Your task to perform on an android device: Open my contact list Image 0: 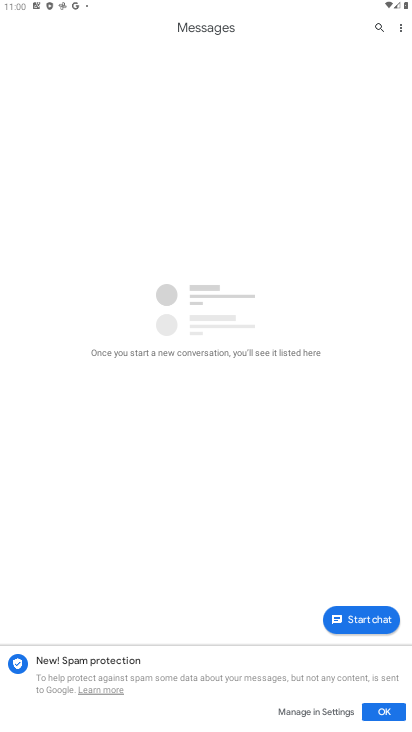
Step 0: press home button
Your task to perform on an android device: Open my contact list Image 1: 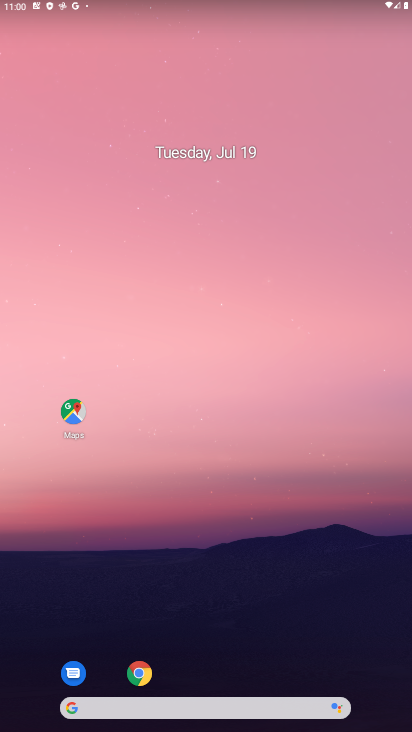
Step 1: drag from (214, 681) to (217, 17)
Your task to perform on an android device: Open my contact list Image 2: 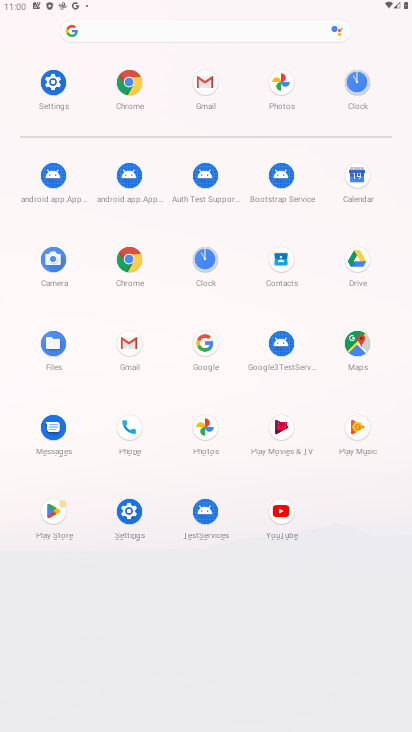
Step 2: click (351, 174)
Your task to perform on an android device: Open my contact list Image 3: 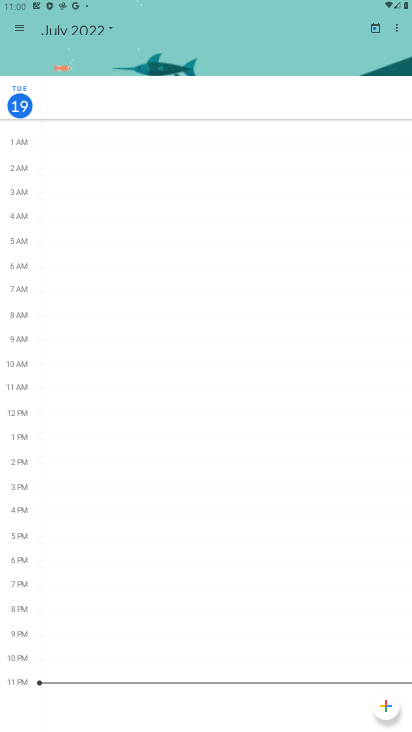
Step 3: press home button
Your task to perform on an android device: Open my contact list Image 4: 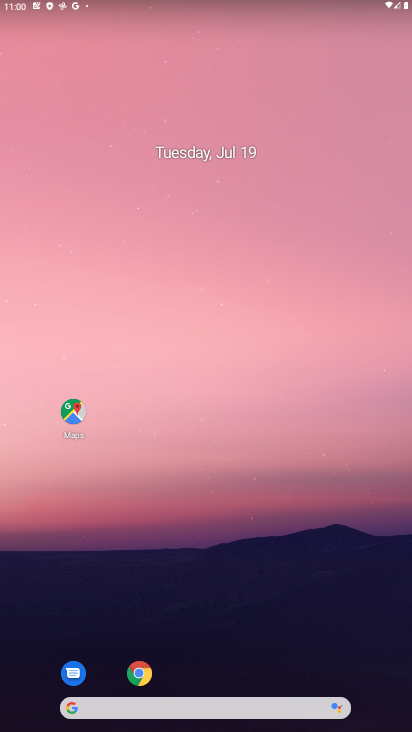
Step 4: drag from (285, 690) to (183, 30)
Your task to perform on an android device: Open my contact list Image 5: 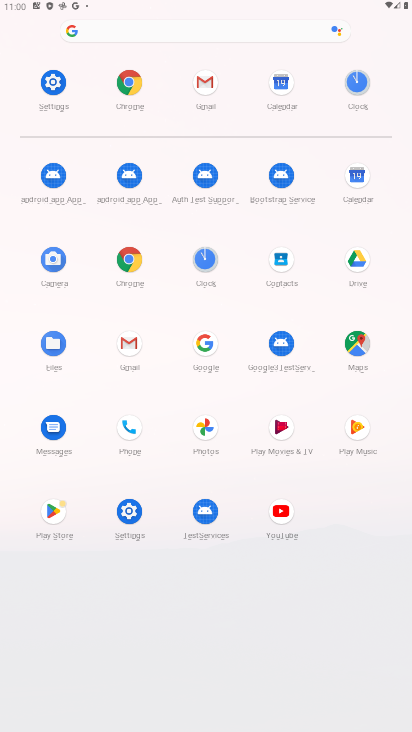
Step 5: click (355, 195)
Your task to perform on an android device: Open my contact list Image 6: 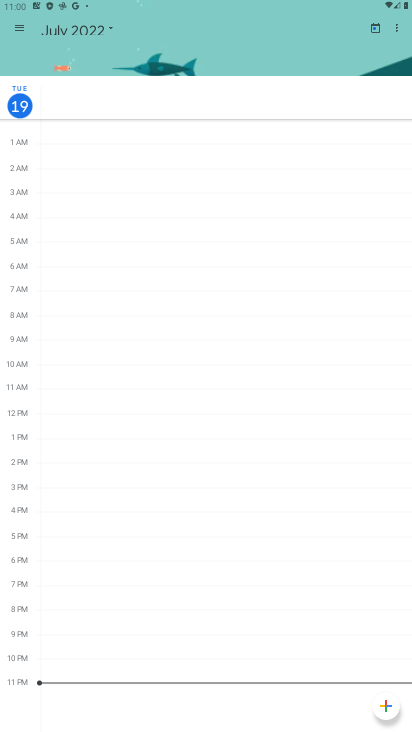
Step 6: task complete